Your task to perform on an android device: change the clock display to digital Image 0: 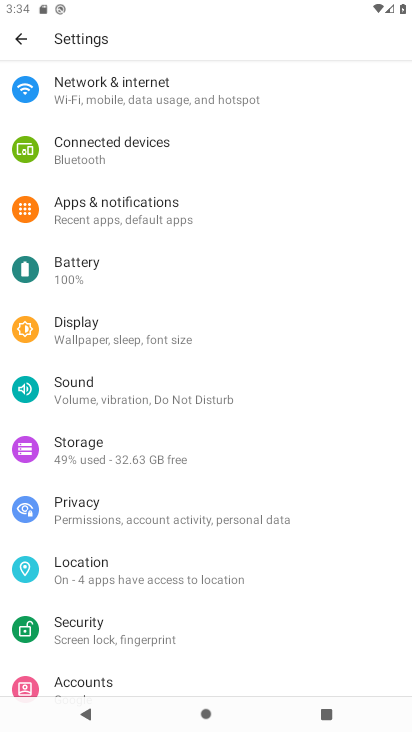
Step 0: press home button
Your task to perform on an android device: change the clock display to digital Image 1: 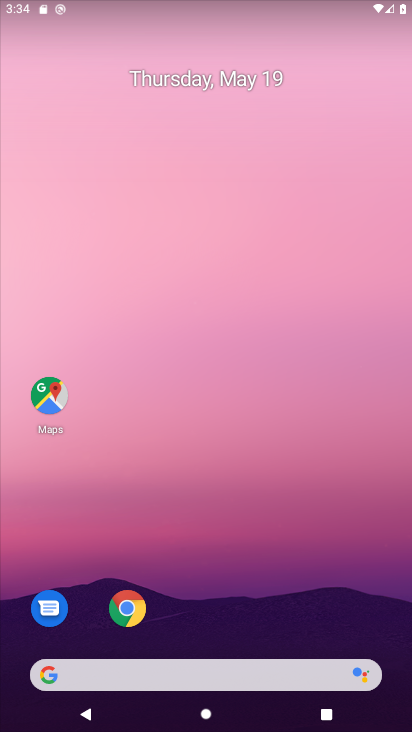
Step 1: drag from (200, 551) to (178, 314)
Your task to perform on an android device: change the clock display to digital Image 2: 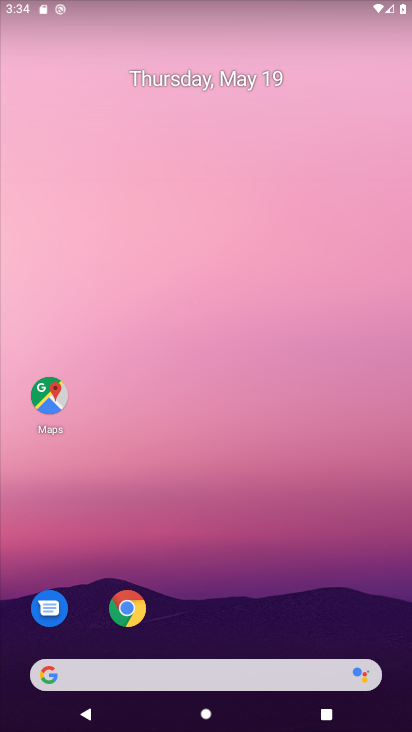
Step 2: drag from (232, 663) to (182, 242)
Your task to perform on an android device: change the clock display to digital Image 3: 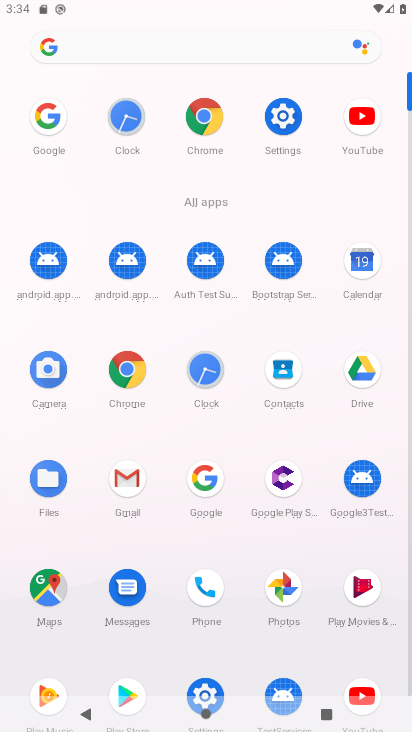
Step 3: click (205, 365)
Your task to perform on an android device: change the clock display to digital Image 4: 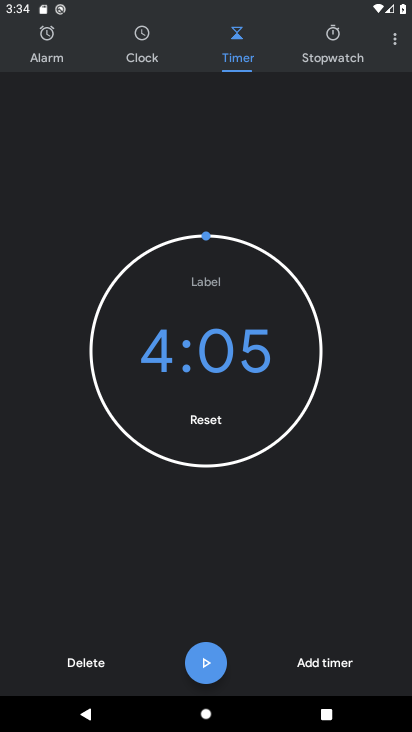
Step 4: click (404, 44)
Your task to perform on an android device: change the clock display to digital Image 5: 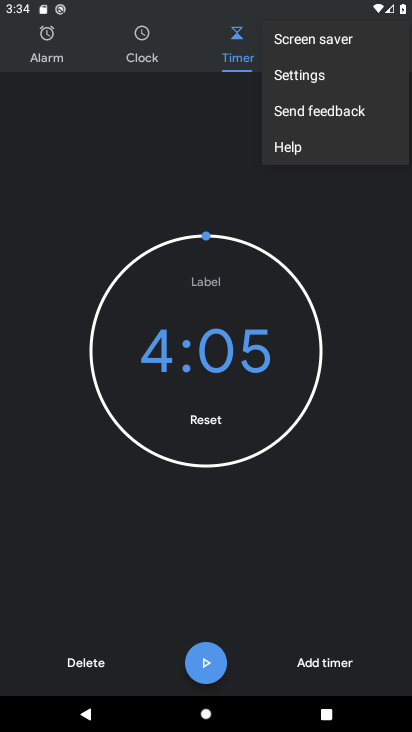
Step 5: click (299, 75)
Your task to perform on an android device: change the clock display to digital Image 6: 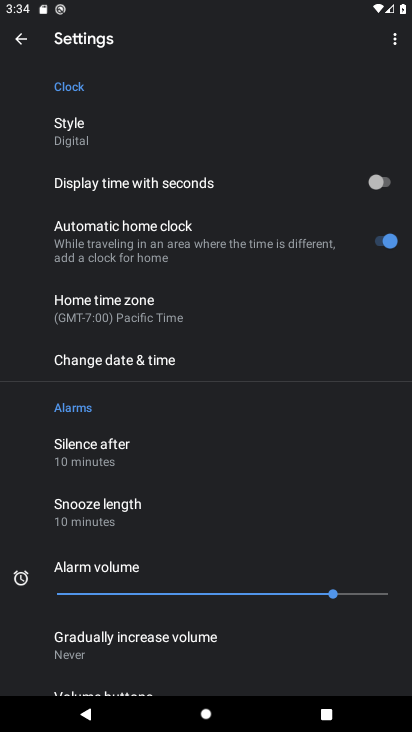
Step 6: click (88, 137)
Your task to perform on an android device: change the clock display to digital Image 7: 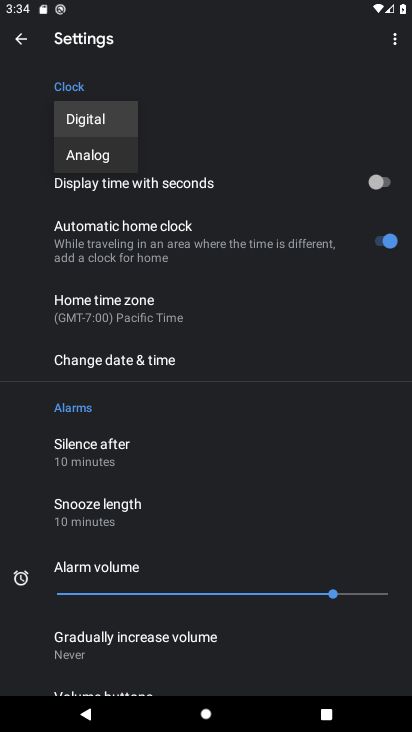
Step 7: task complete